Your task to perform on an android device: toggle pop-ups in chrome Image 0: 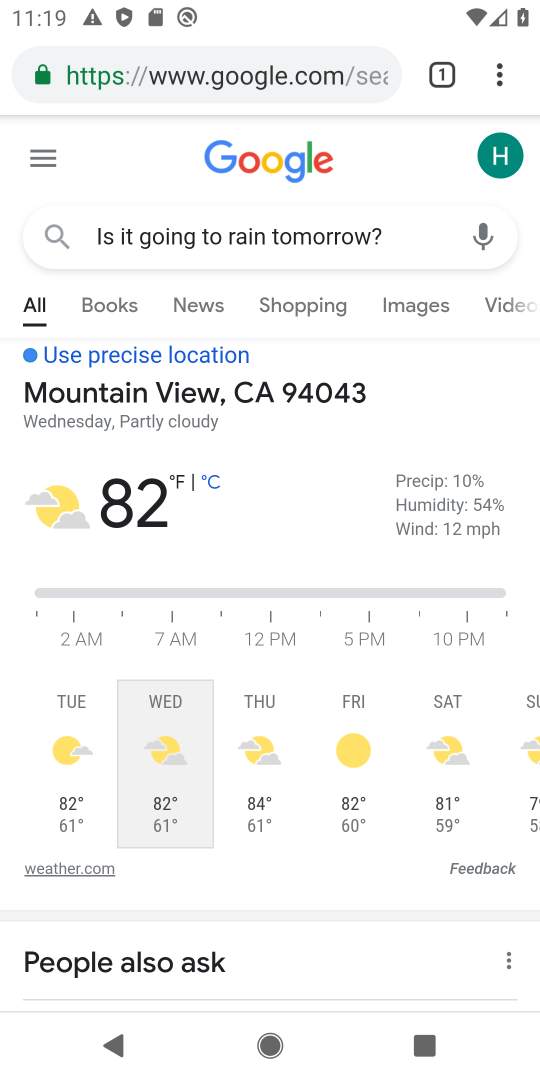
Step 0: press home button
Your task to perform on an android device: toggle pop-ups in chrome Image 1: 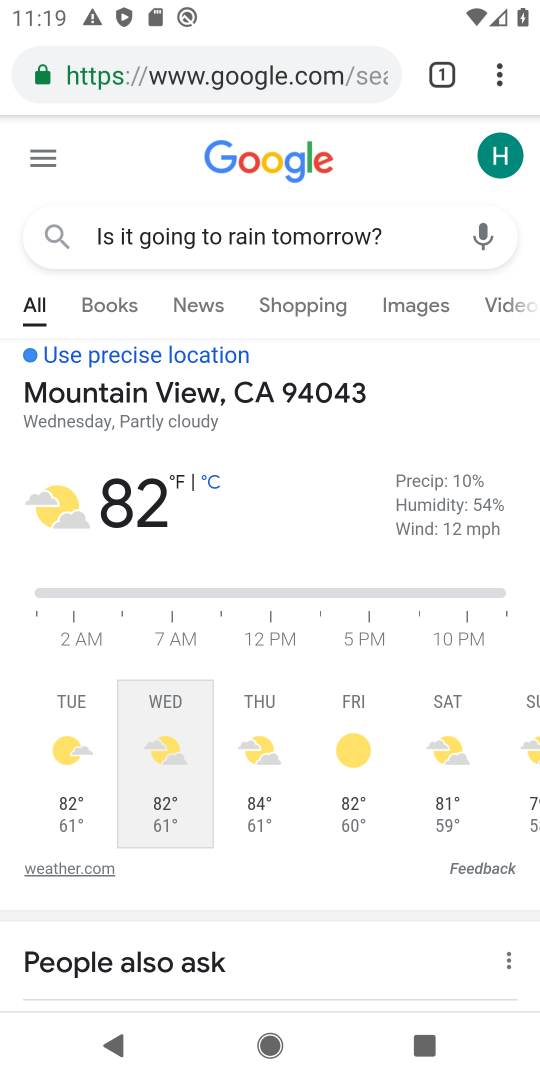
Step 1: click (158, 384)
Your task to perform on an android device: toggle pop-ups in chrome Image 2: 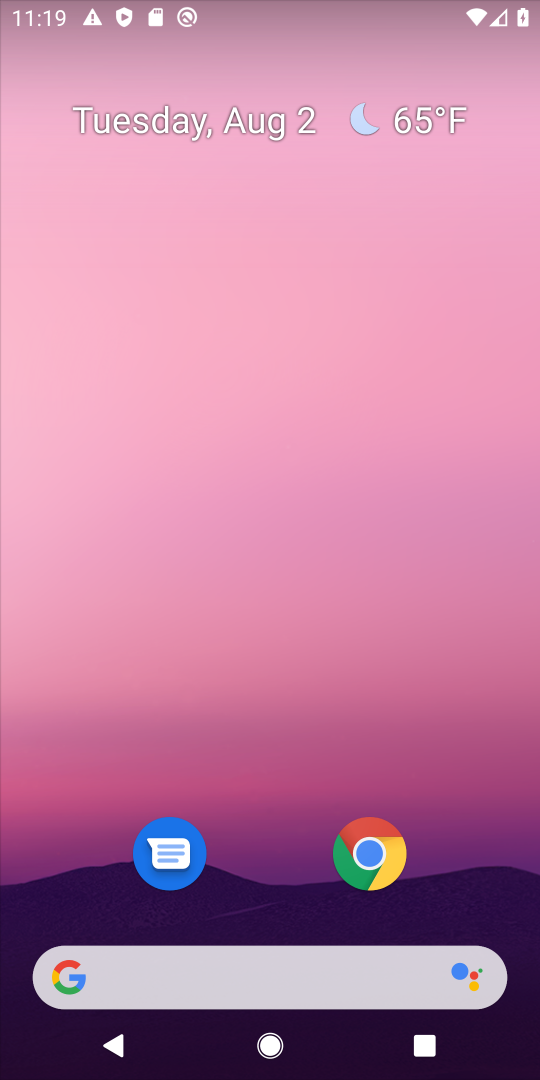
Step 2: drag from (423, 887) to (464, 87)
Your task to perform on an android device: toggle pop-ups in chrome Image 3: 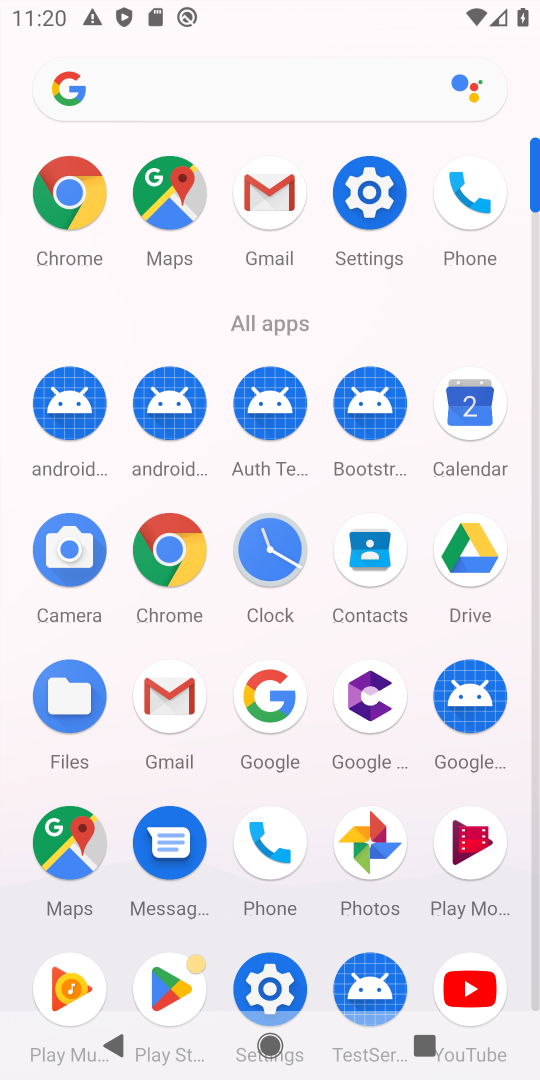
Step 3: click (193, 567)
Your task to perform on an android device: toggle pop-ups in chrome Image 4: 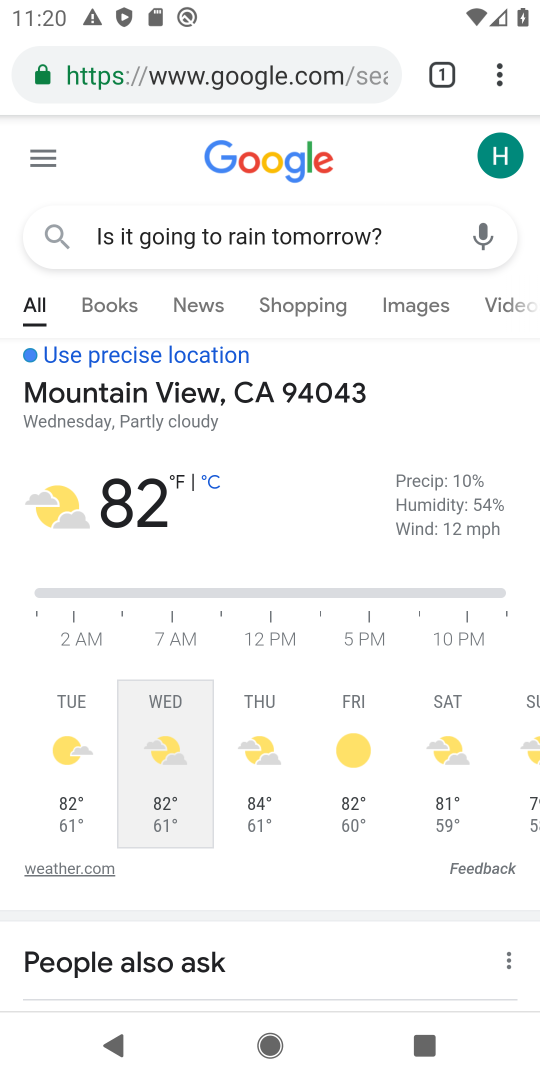
Step 4: drag from (493, 78) to (227, 942)
Your task to perform on an android device: toggle pop-ups in chrome Image 5: 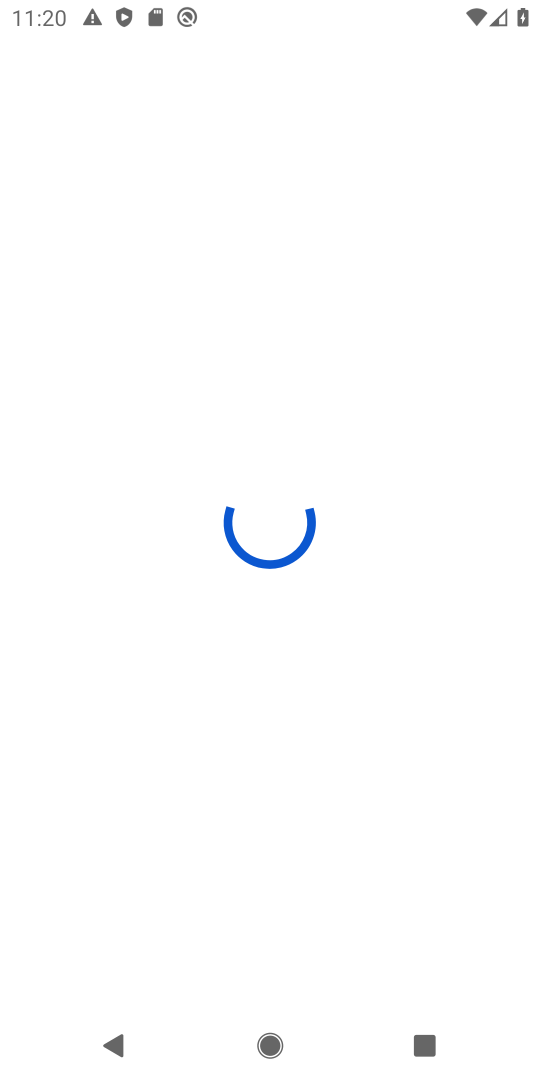
Step 5: press back button
Your task to perform on an android device: toggle pop-ups in chrome Image 6: 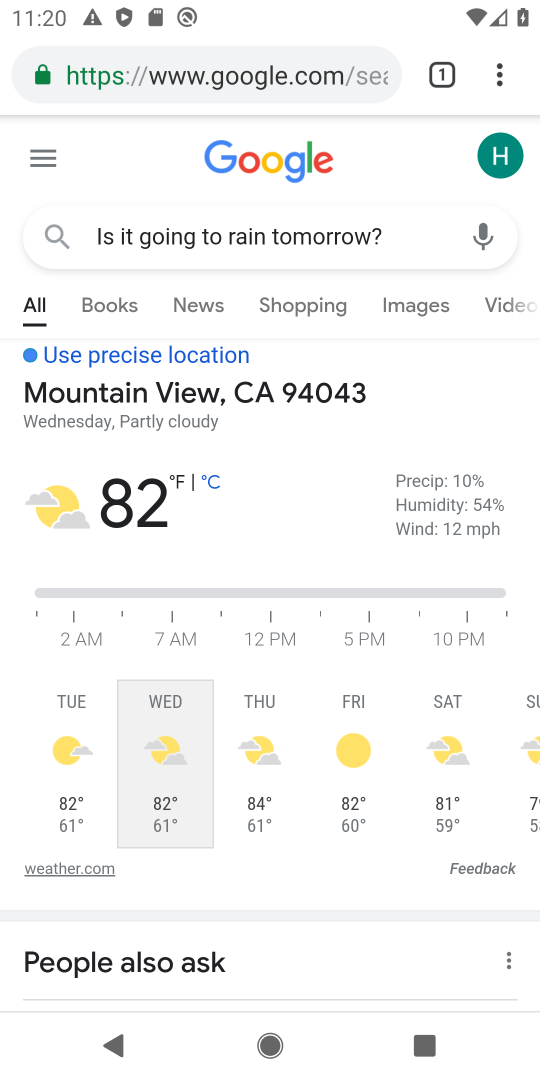
Step 6: drag from (485, 72) to (212, 924)
Your task to perform on an android device: toggle pop-ups in chrome Image 7: 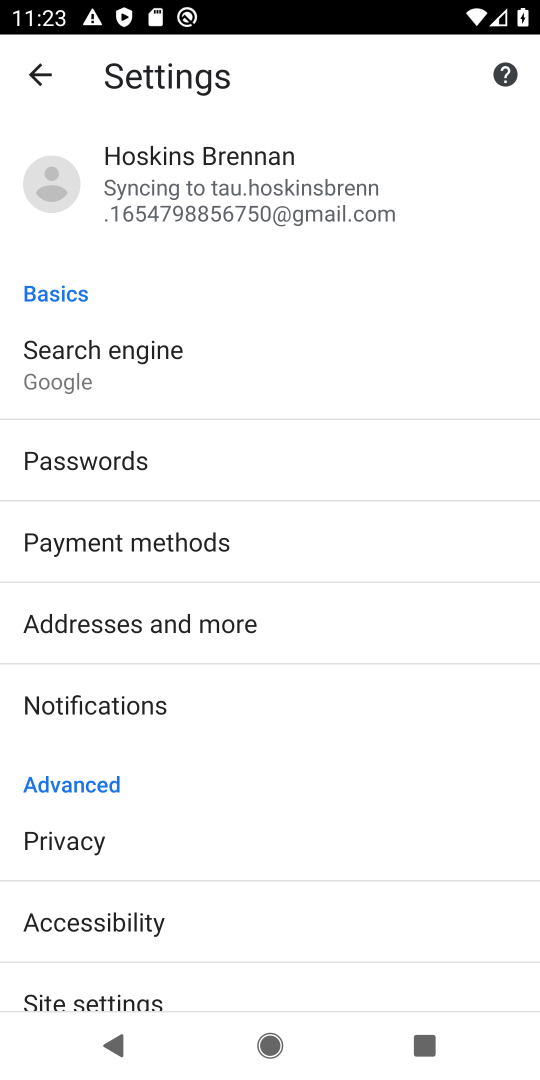
Step 7: drag from (204, 839) to (196, 533)
Your task to perform on an android device: toggle pop-ups in chrome Image 8: 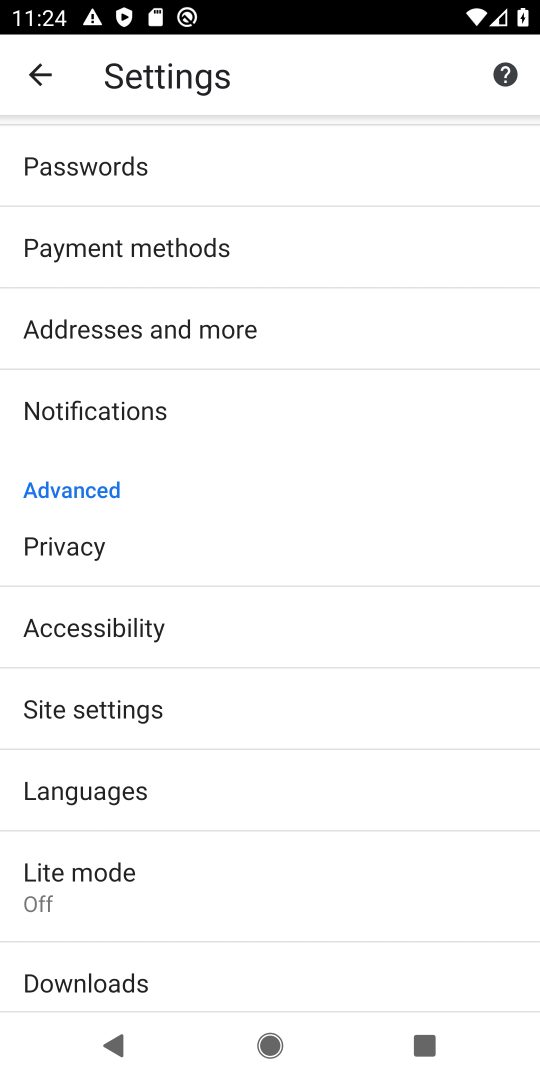
Step 8: click (135, 706)
Your task to perform on an android device: toggle pop-ups in chrome Image 9: 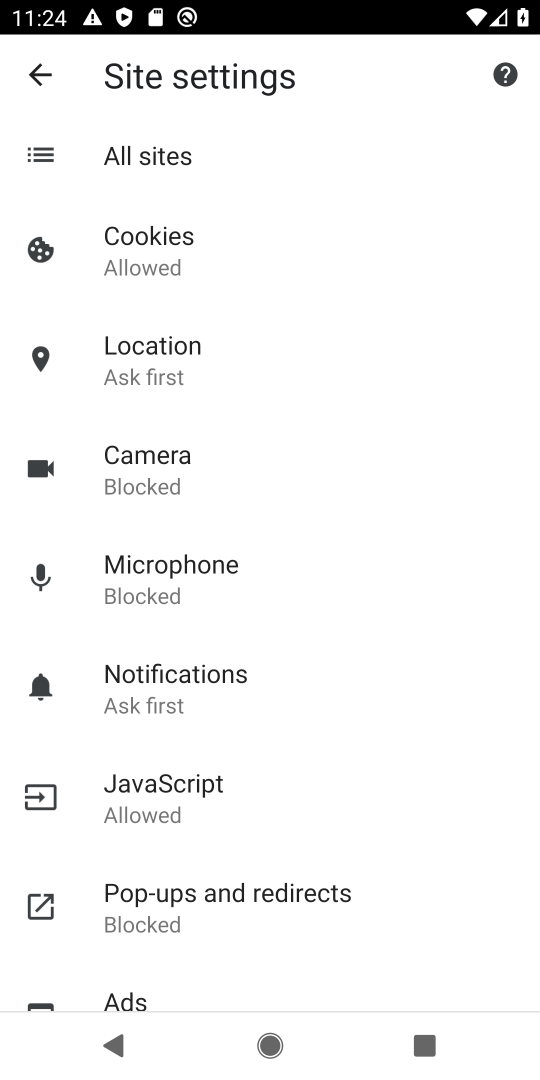
Step 9: click (103, 904)
Your task to perform on an android device: toggle pop-ups in chrome Image 10: 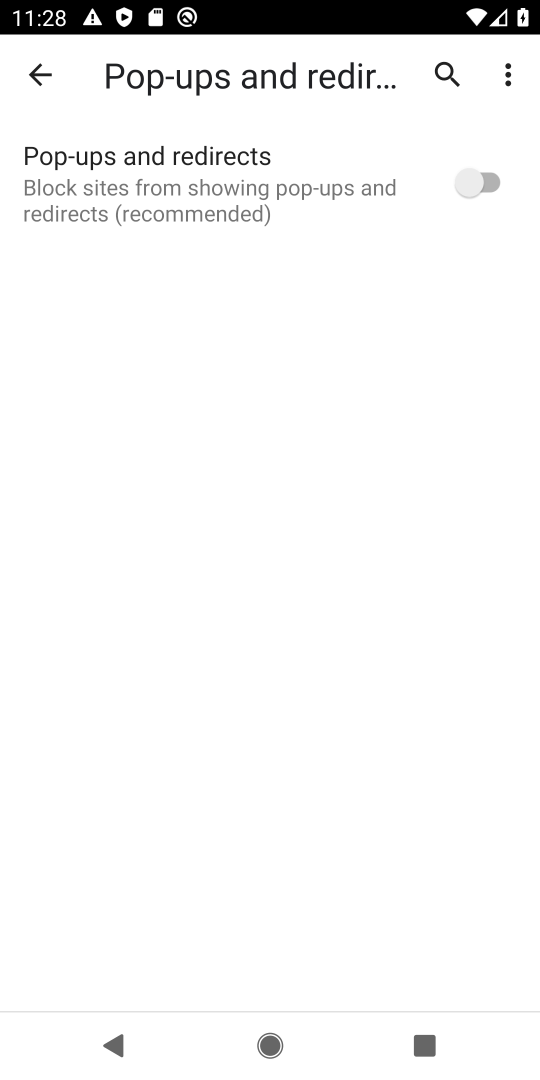
Step 10: click (283, 213)
Your task to perform on an android device: toggle pop-ups in chrome Image 11: 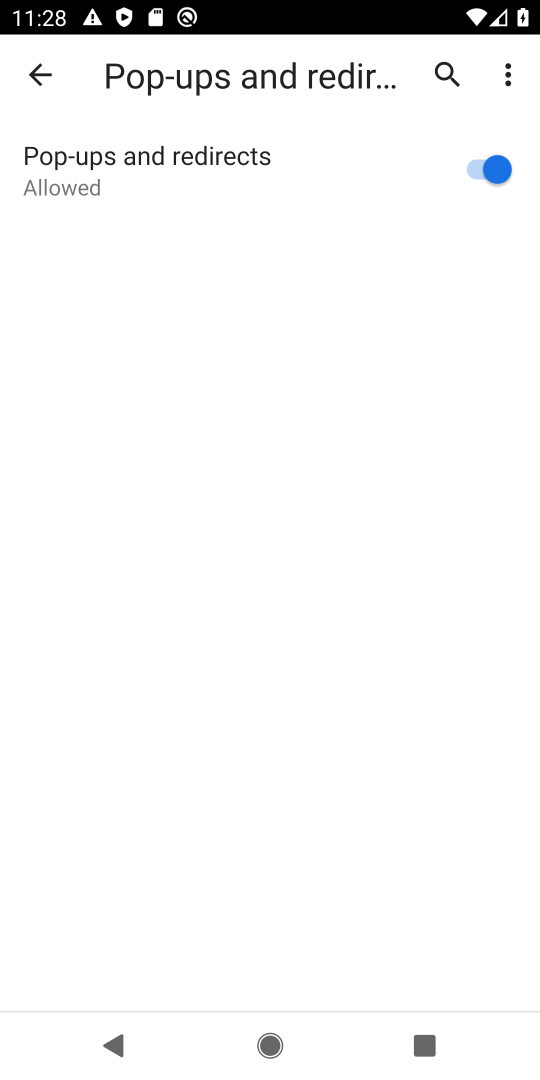
Step 11: task complete